Your task to perform on an android device: Toggle the flashlight Image 0: 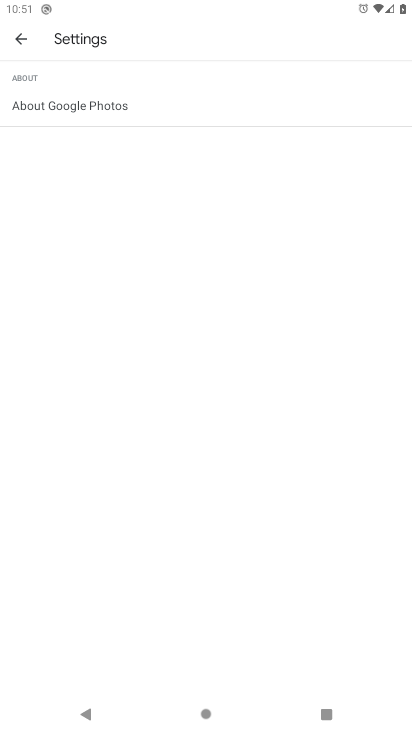
Step 0: press home button
Your task to perform on an android device: Toggle the flashlight Image 1: 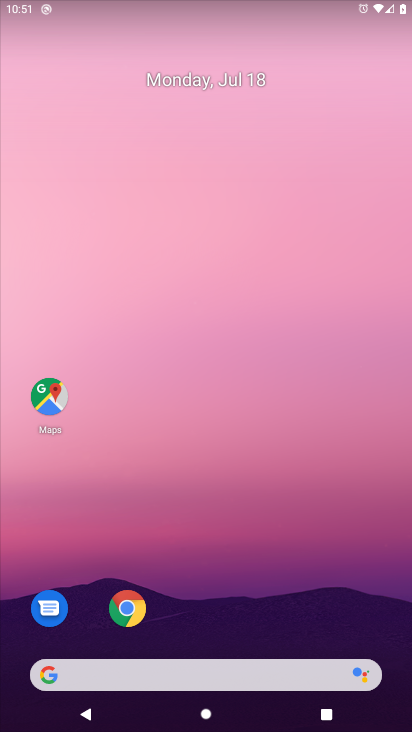
Step 1: drag from (124, 494) to (202, 113)
Your task to perform on an android device: Toggle the flashlight Image 2: 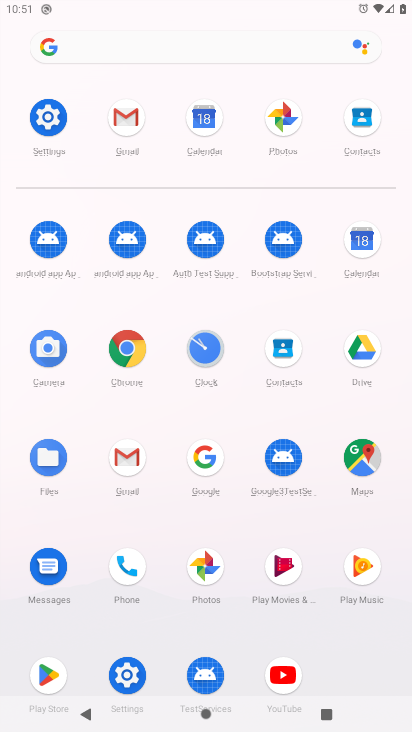
Step 2: click (135, 673)
Your task to perform on an android device: Toggle the flashlight Image 3: 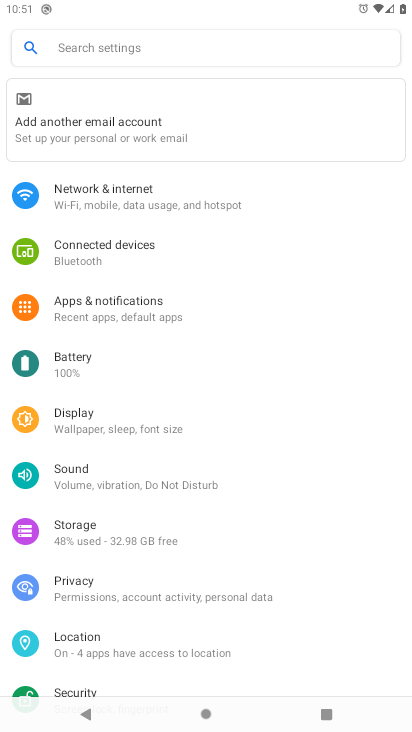
Step 3: task complete